Your task to perform on an android device: What's on my calendar today? Image 0: 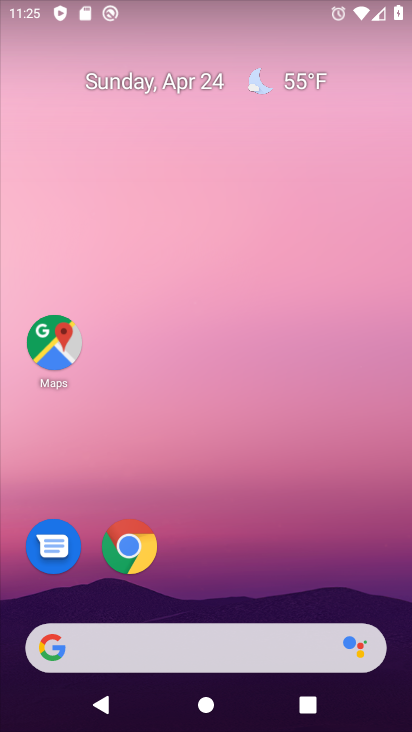
Step 0: drag from (244, 556) to (171, 54)
Your task to perform on an android device: What's on my calendar today? Image 1: 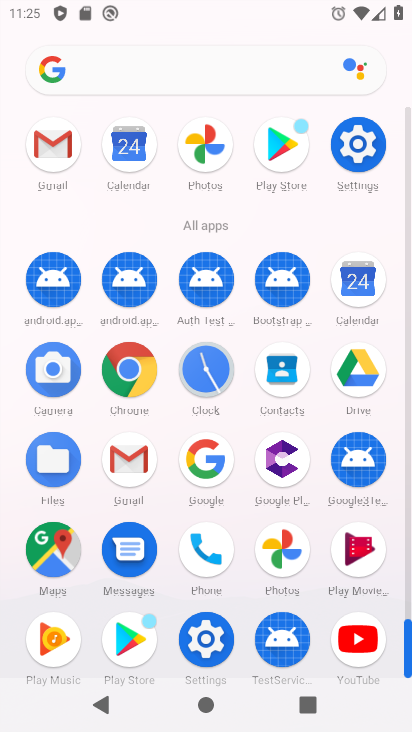
Step 1: click (362, 283)
Your task to perform on an android device: What's on my calendar today? Image 2: 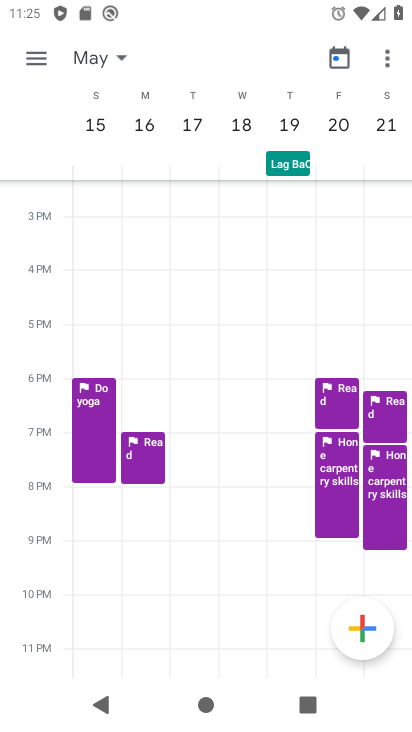
Step 2: click (114, 56)
Your task to perform on an android device: What's on my calendar today? Image 3: 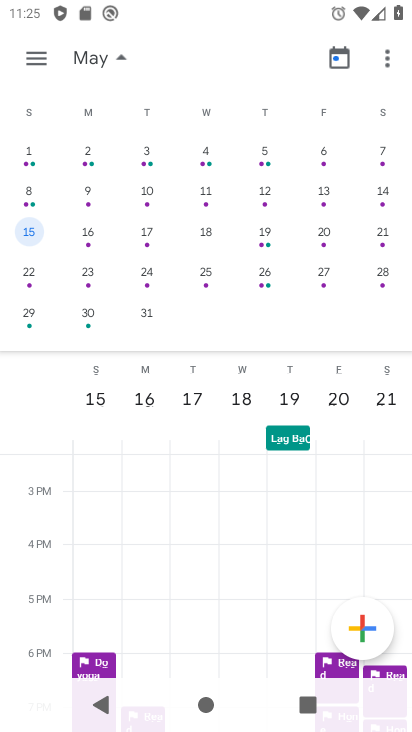
Step 3: click (344, 61)
Your task to perform on an android device: What's on my calendar today? Image 4: 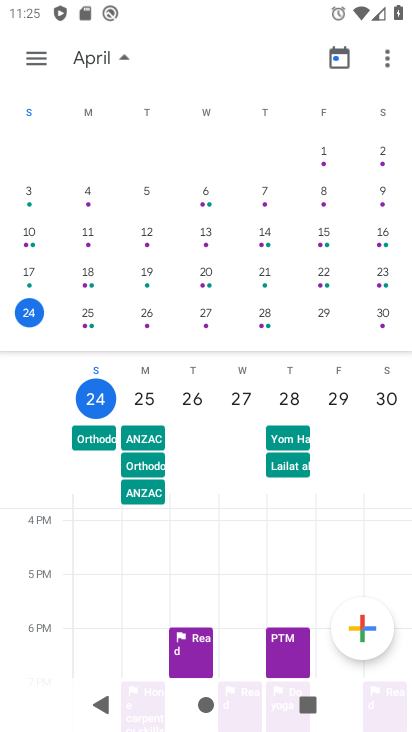
Step 4: click (31, 310)
Your task to perform on an android device: What's on my calendar today? Image 5: 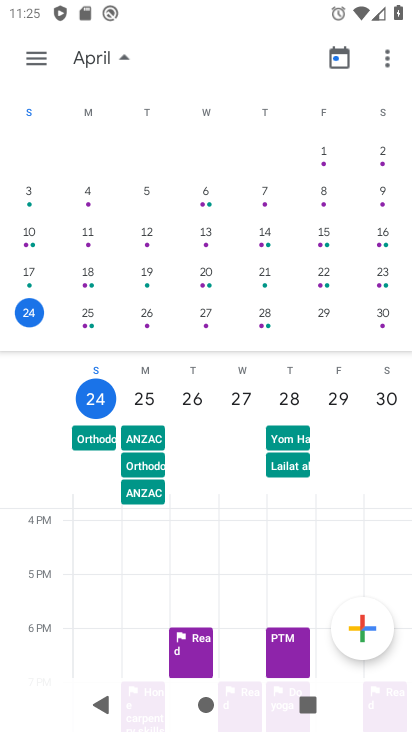
Step 5: click (36, 60)
Your task to perform on an android device: What's on my calendar today? Image 6: 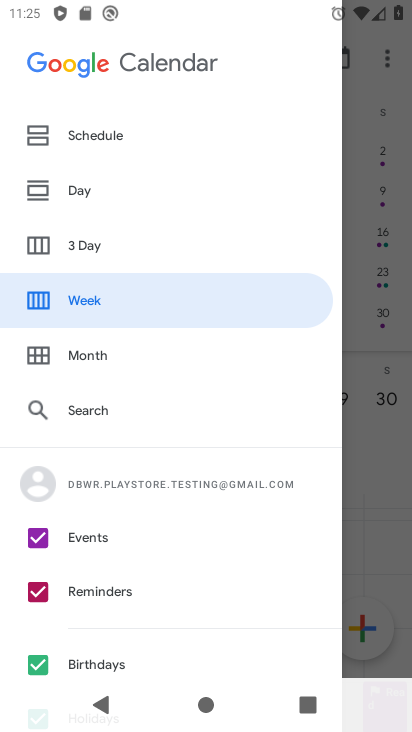
Step 6: click (117, 135)
Your task to perform on an android device: What's on my calendar today? Image 7: 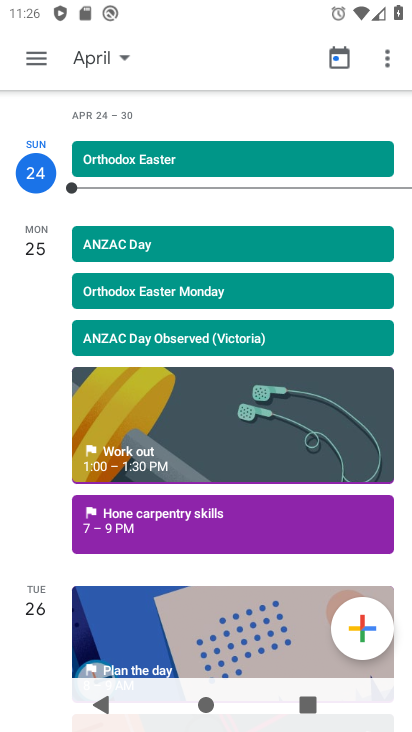
Step 7: task complete